Your task to perform on an android device: Open Chrome and go to settings Image 0: 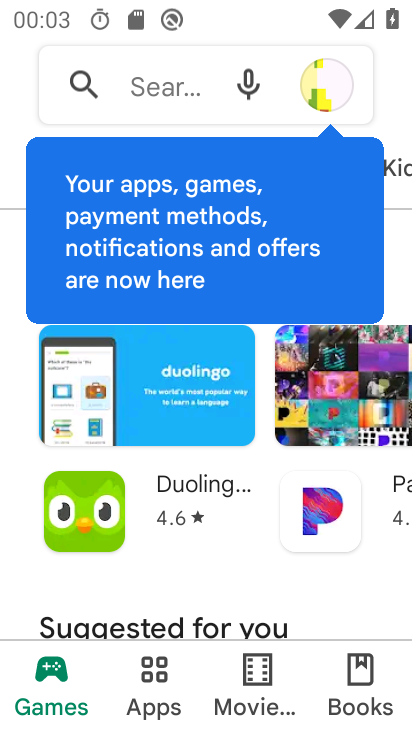
Step 0: press home button
Your task to perform on an android device: Open Chrome and go to settings Image 1: 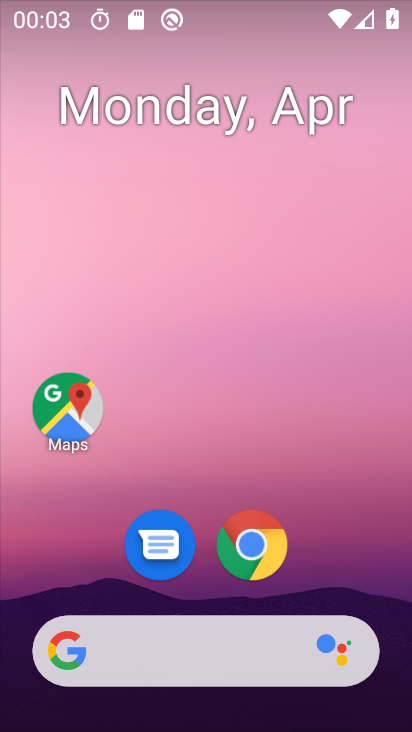
Step 1: drag from (328, 518) to (376, 193)
Your task to perform on an android device: Open Chrome and go to settings Image 2: 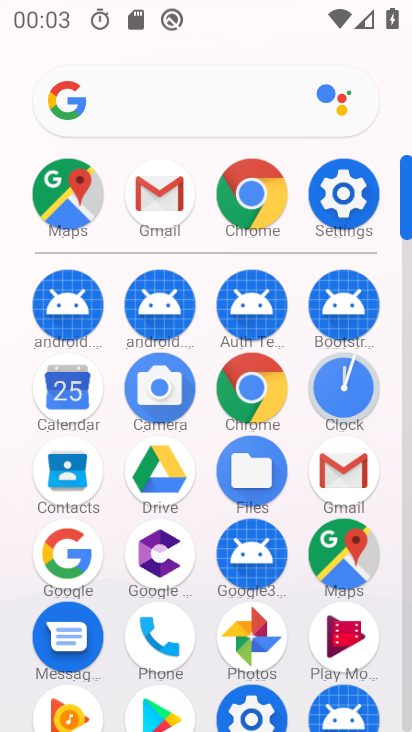
Step 2: click (247, 187)
Your task to perform on an android device: Open Chrome and go to settings Image 3: 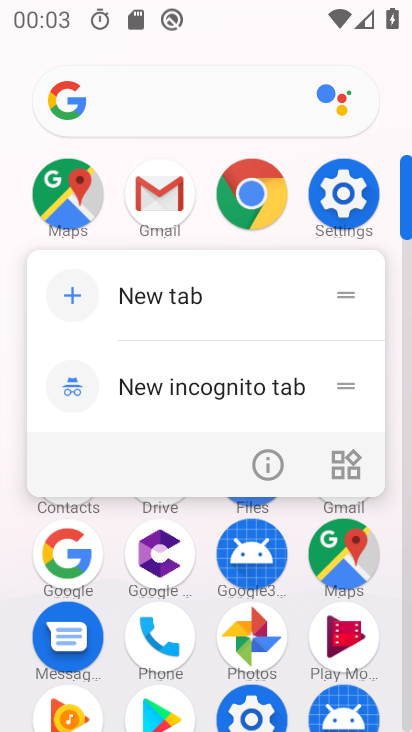
Step 3: click (261, 195)
Your task to perform on an android device: Open Chrome and go to settings Image 4: 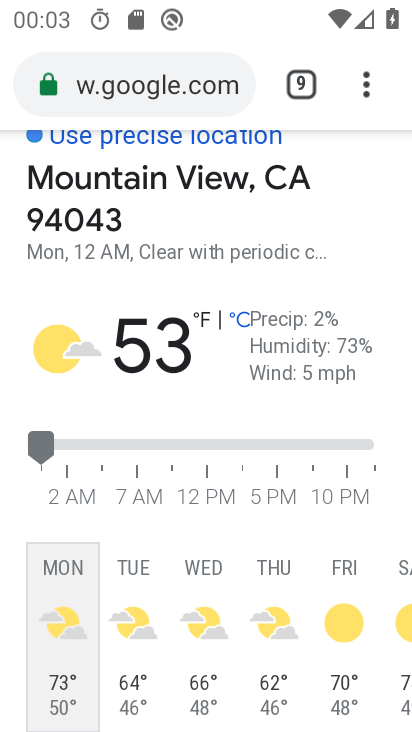
Step 4: click (261, 195)
Your task to perform on an android device: Open Chrome and go to settings Image 5: 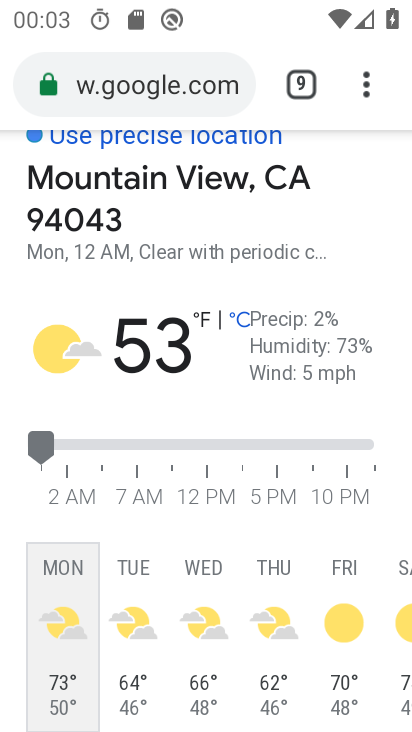
Step 5: click (351, 85)
Your task to perform on an android device: Open Chrome and go to settings Image 6: 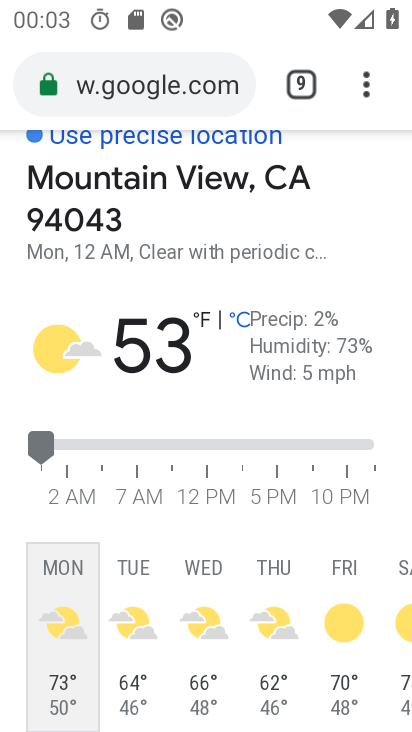
Step 6: click (339, 85)
Your task to perform on an android device: Open Chrome and go to settings Image 7: 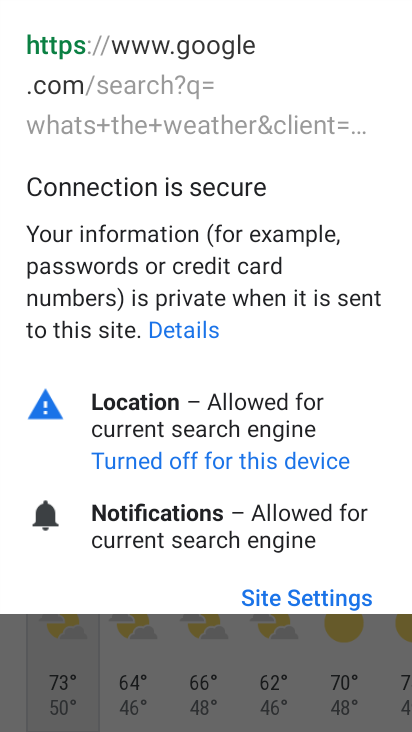
Step 7: press back button
Your task to perform on an android device: Open Chrome and go to settings Image 8: 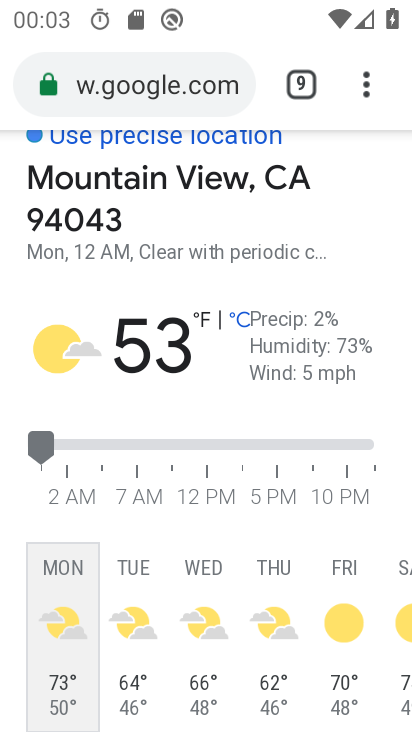
Step 8: click (346, 84)
Your task to perform on an android device: Open Chrome and go to settings Image 9: 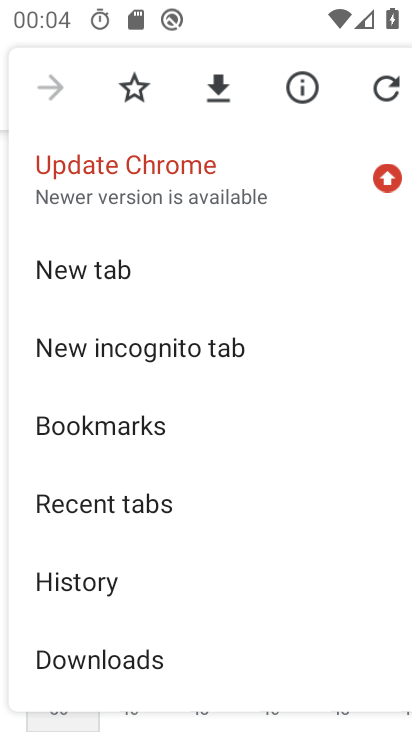
Step 9: drag from (222, 660) to (298, 202)
Your task to perform on an android device: Open Chrome and go to settings Image 10: 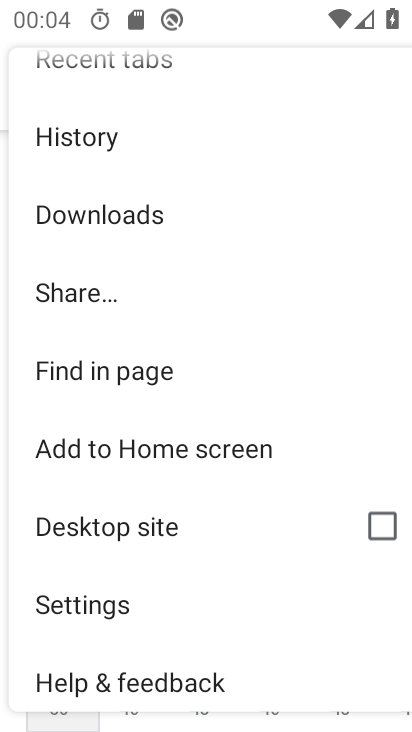
Step 10: click (98, 601)
Your task to perform on an android device: Open Chrome and go to settings Image 11: 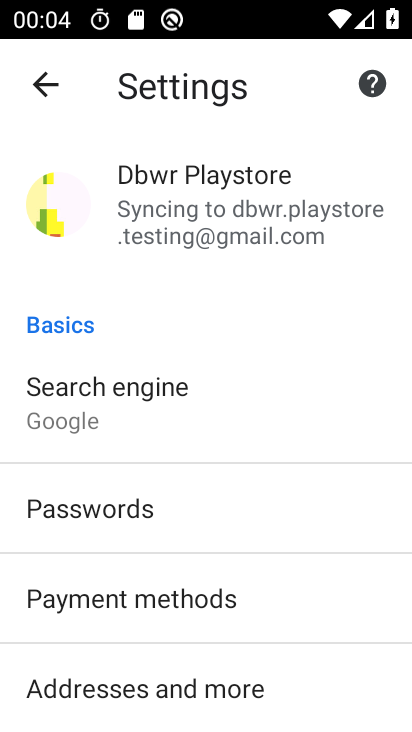
Step 11: task complete